Your task to perform on an android device: Open maps Image 0: 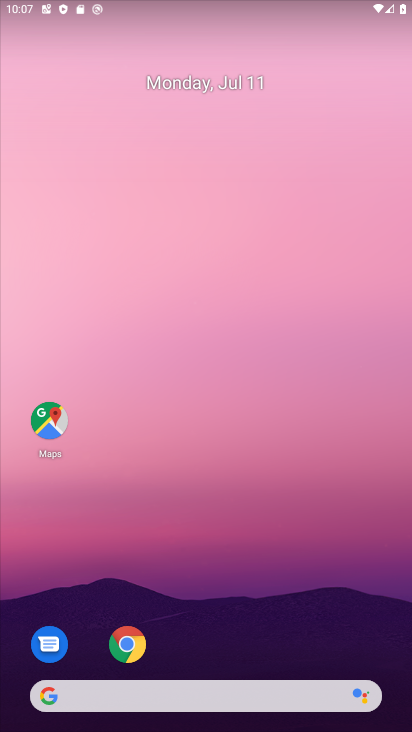
Step 0: press home button
Your task to perform on an android device: Open maps Image 1: 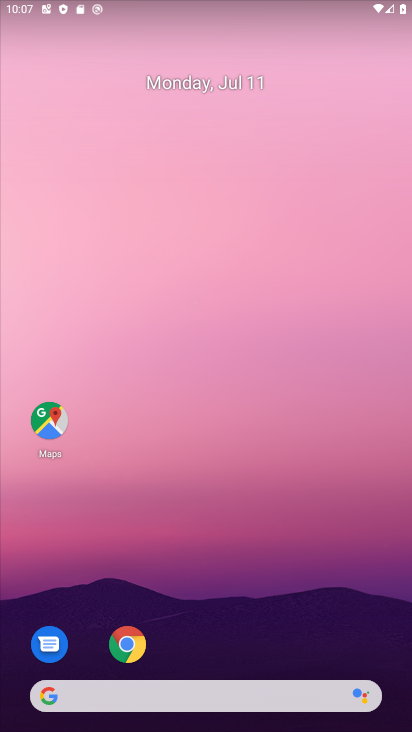
Step 1: click (50, 417)
Your task to perform on an android device: Open maps Image 2: 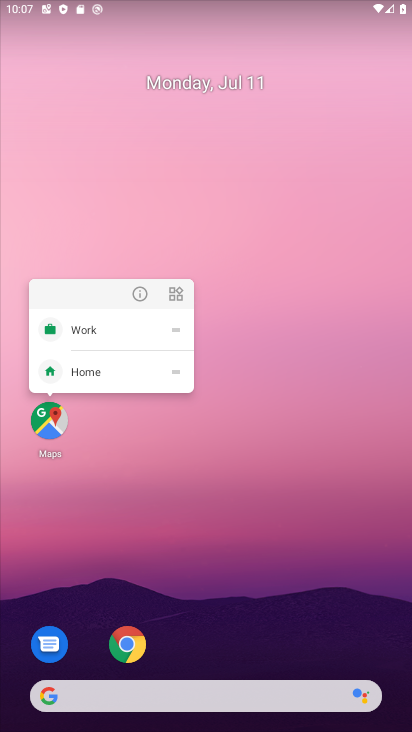
Step 2: click (41, 418)
Your task to perform on an android device: Open maps Image 3: 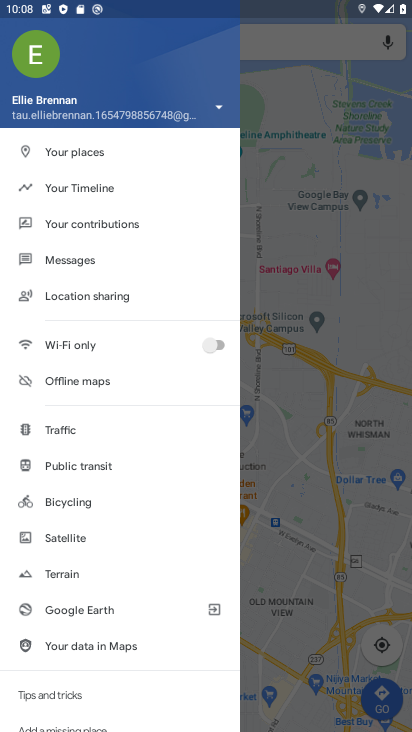
Step 3: task complete